Your task to perform on an android device: turn pop-ups off in chrome Image 0: 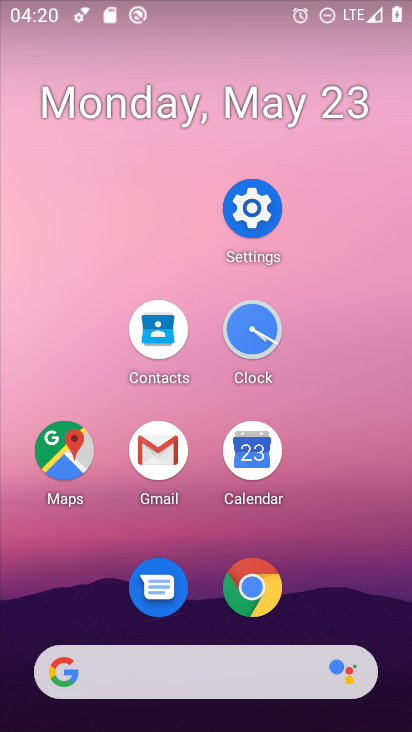
Step 0: click (254, 589)
Your task to perform on an android device: turn pop-ups off in chrome Image 1: 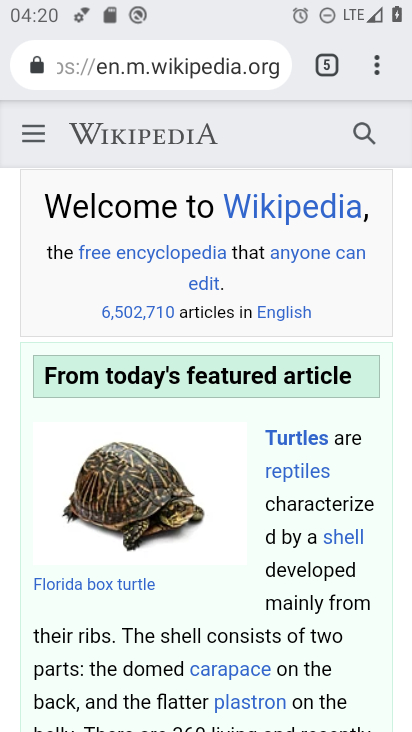
Step 1: click (378, 63)
Your task to perform on an android device: turn pop-ups off in chrome Image 2: 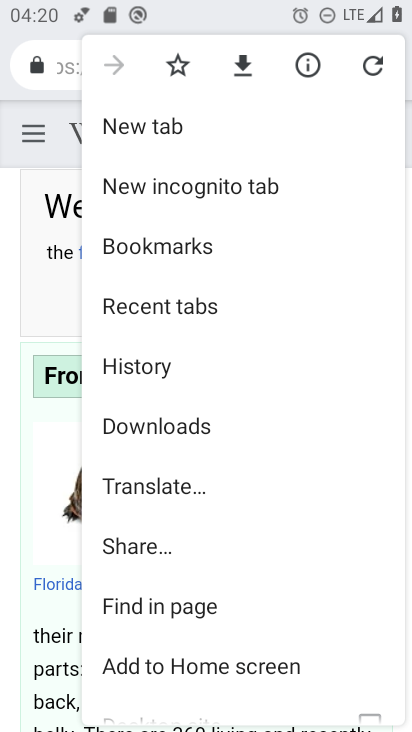
Step 2: drag from (170, 578) to (230, 237)
Your task to perform on an android device: turn pop-ups off in chrome Image 3: 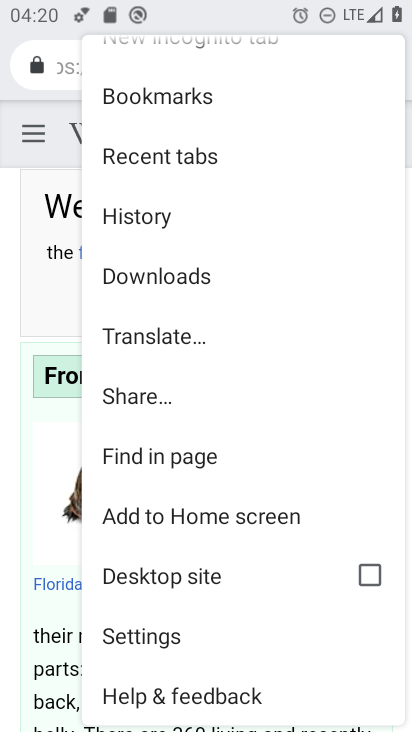
Step 3: click (231, 626)
Your task to perform on an android device: turn pop-ups off in chrome Image 4: 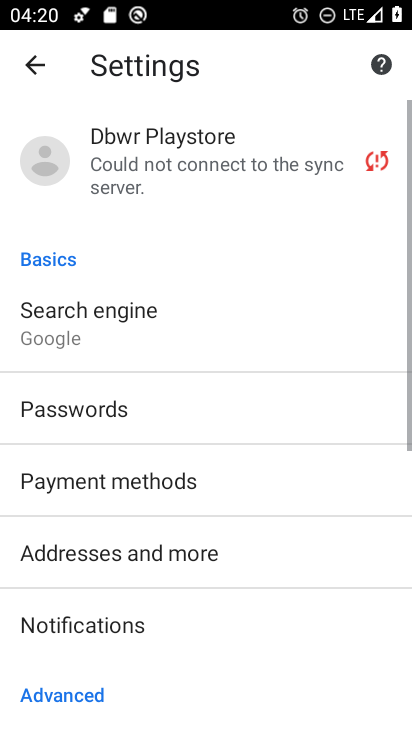
Step 4: drag from (231, 626) to (283, 192)
Your task to perform on an android device: turn pop-ups off in chrome Image 5: 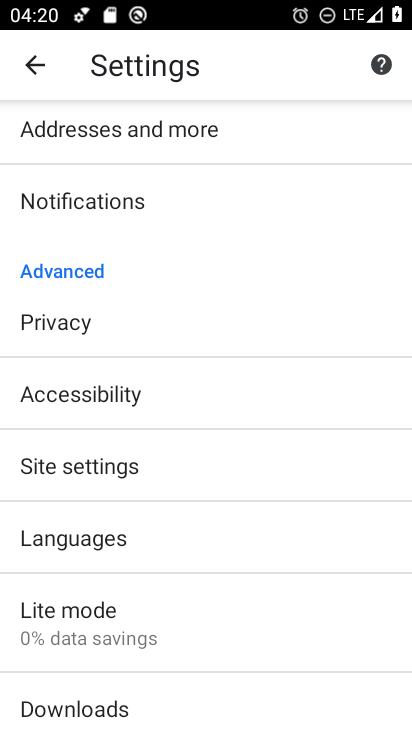
Step 5: drag from (268, 675) to (261, 224)
Your task to perform on an android device: turn pop-ups off in chrome Image 6: 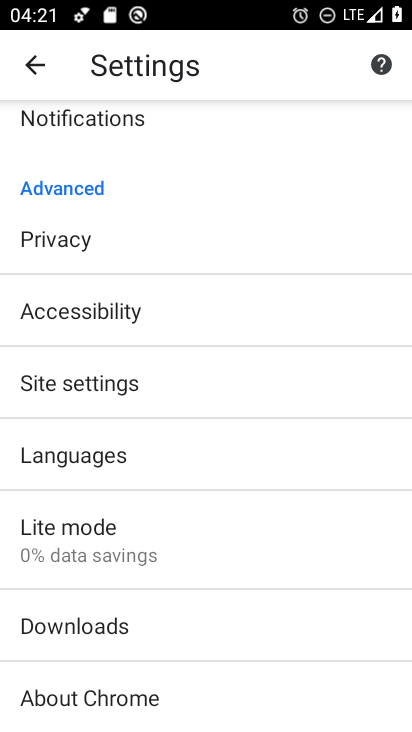
Step 6: click (183, 391)
Your task to perform on an android device: turn pop-ups off in chrome Image 7: 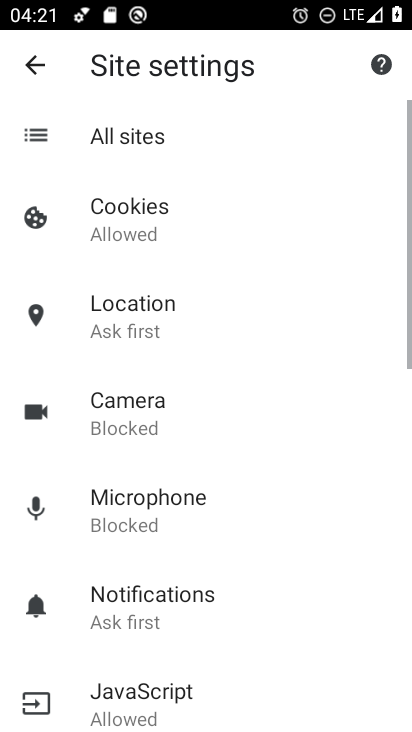
Step 7: drag from (230, 630) to (217, 208)
Your task to perform on an android device: turn pop-ups off in chrome Image 8: 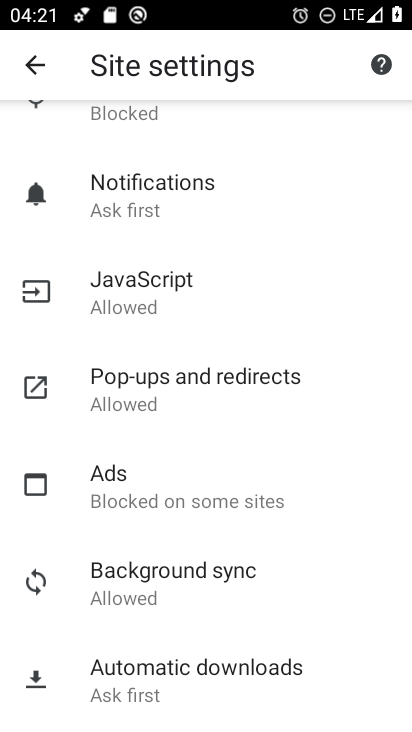
Step 8: click (180, 430)
Your task to perform on an android device: turn pop-ups off in chrome Image 9: 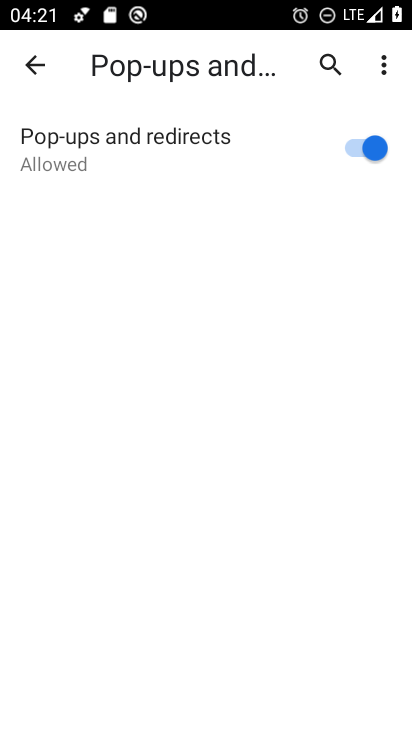
Step 9: click (363, 139)
Your task to perform on an android device: turn pop-ups off in chrome Image 10: 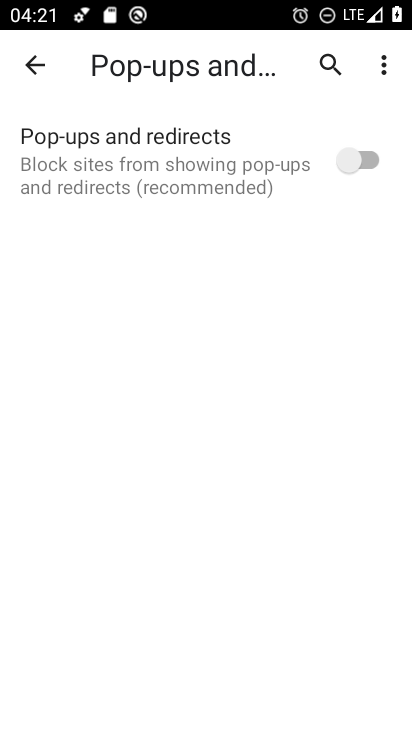
Step 10: task complete